Your task to perform on an android device: toggle airplane mode Image 0: 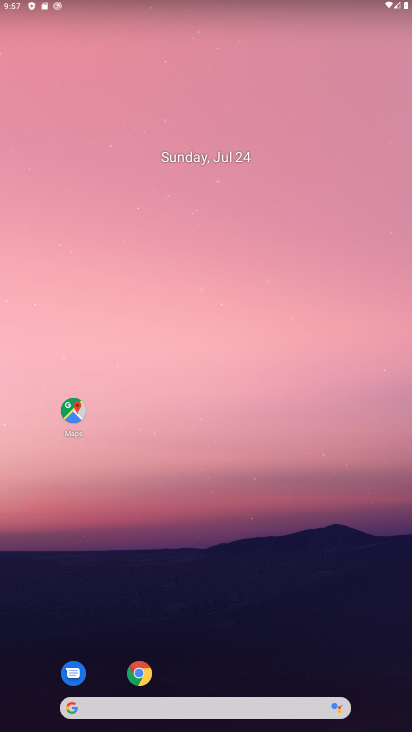
Step 0: drag from (206, 1) to (241, 396)
Your task to perform on an android device: toggle airplane mode Image 1: 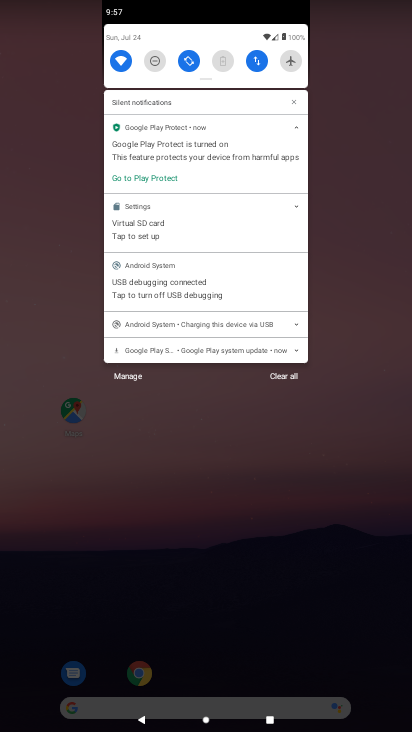
Step 1: task complete